Your task to perform on an android device: Is it going to rain tomorrow? Image 0: 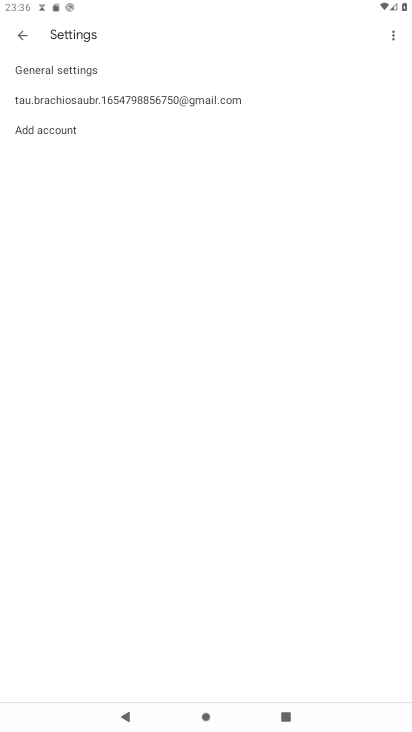
Step 0: press home button
Your task to perform on an android device: Is it going to rain tomorrow? Image 1: 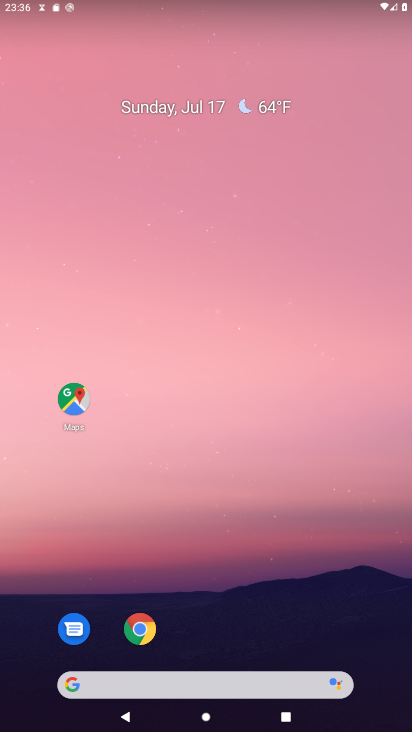
Step 1: click (141, 636)
Your task to perform on an android device: Is it going to rain tomorrow? Image 2: 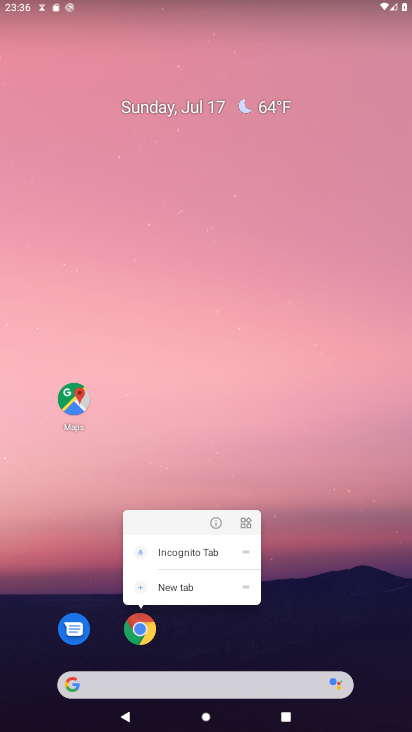
Step 2: click (145, 633)
Your task to perform on an android device: Is it going to rain tomorrow? Image 3: 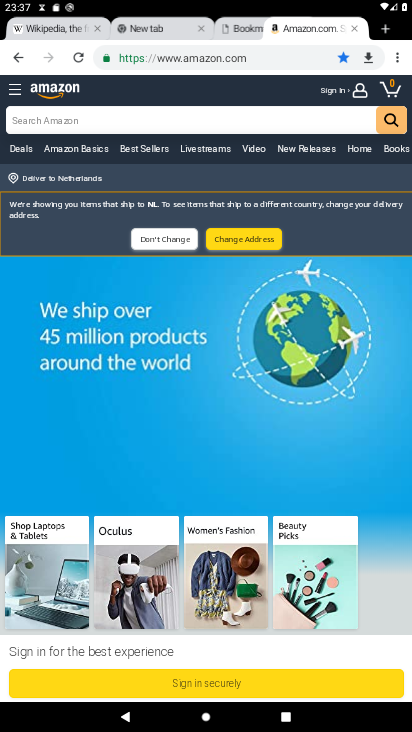
Step 3: click (348, 26)
Your task to perform on an android device: Is it going to rain tomorrow? Image 4: 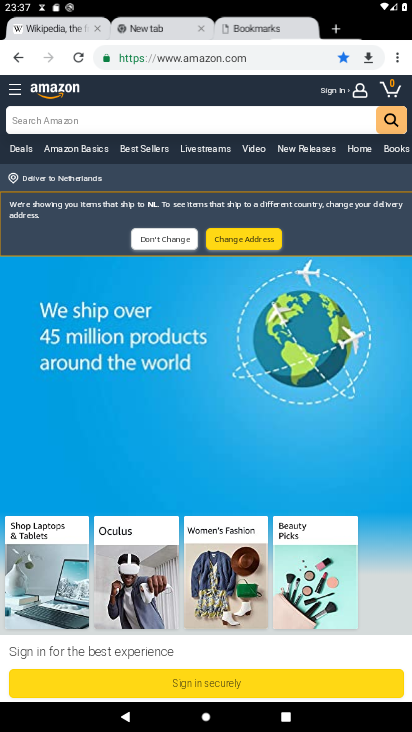
Step 4: click (348, 26)
Your task to perform on an android device: Is it going to rain tomorrow? Image 5: 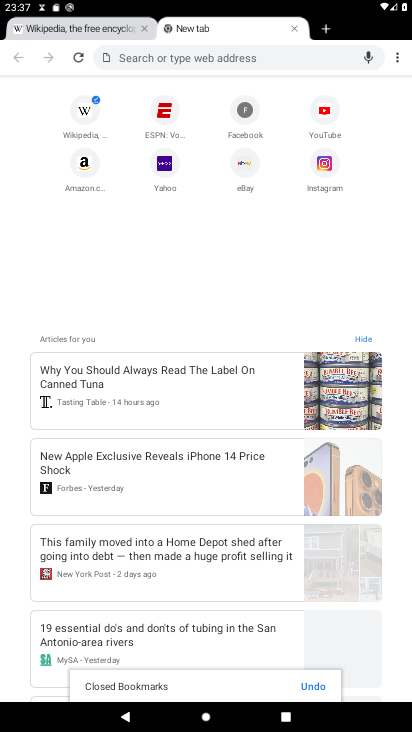
Step 5: click (328, 26)
Your task to perform on an android device: Is it going to rain tomorrow? Image 6: 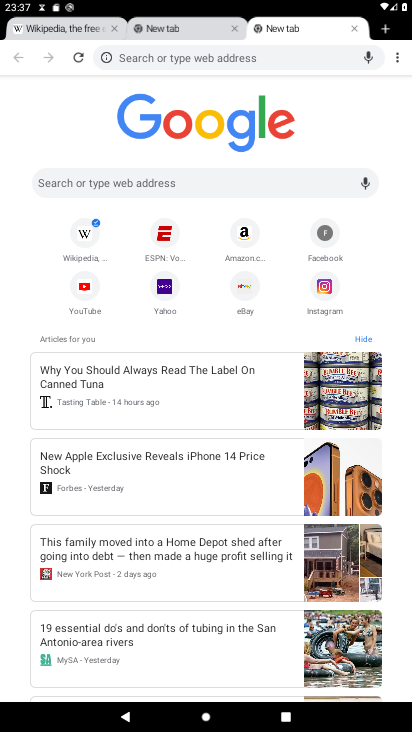
Step 6: click (201, 181)
Your task to perform on an android device: Is it going to rain tomorrow? Image 7: 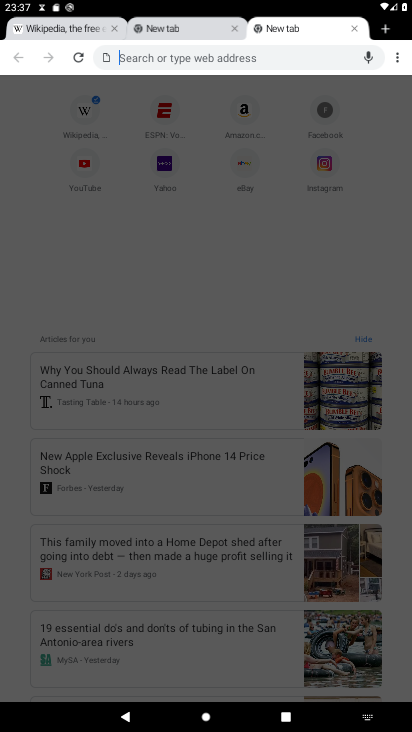
Step 7: type "Is it going to rain tomorrow "
Your task to perform on an android device: Is it going to rain tomorrow? Image 8: 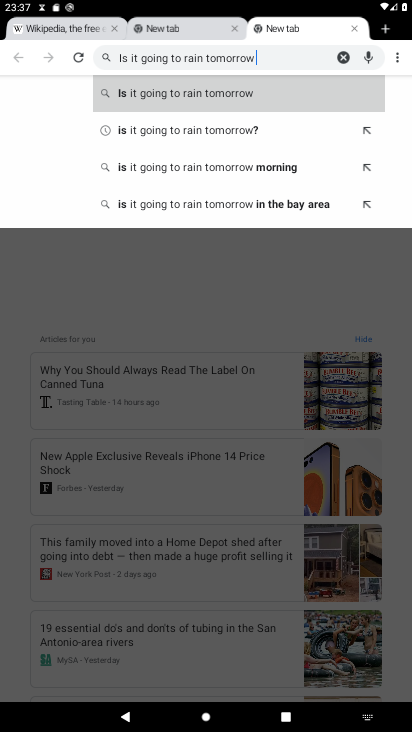
Step 8: click (247, 92)
Your task to perform on an android device: Is it going to rain tomorrow? Image 9: 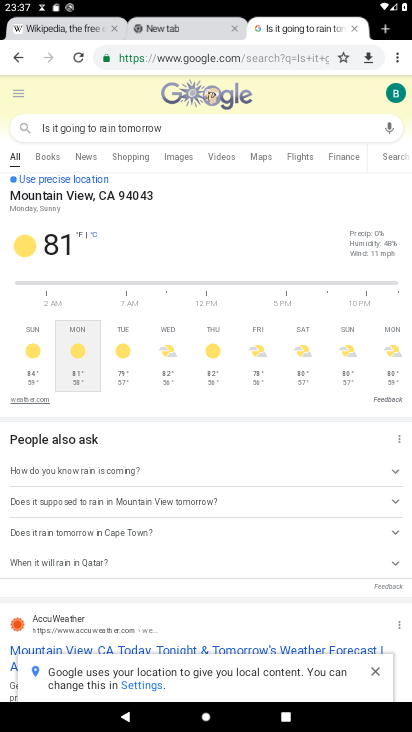
Step 9: task complete